Your task to perform on an android device: See recent photos Image 0: 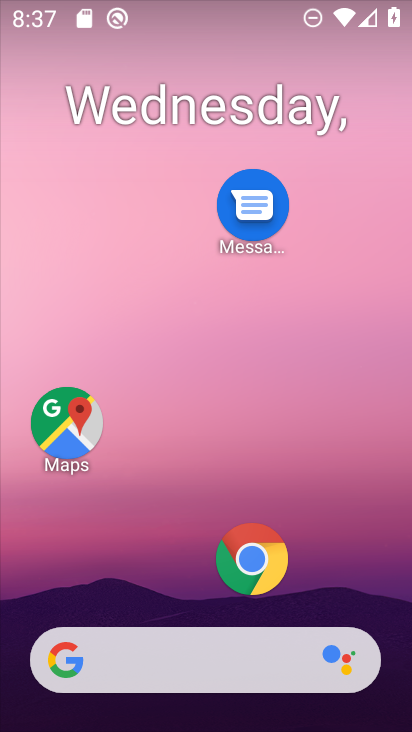
Step 0: drag from (301, 541) to (297, 314)
Your task to perform on an android device: See recent photos Image 1: 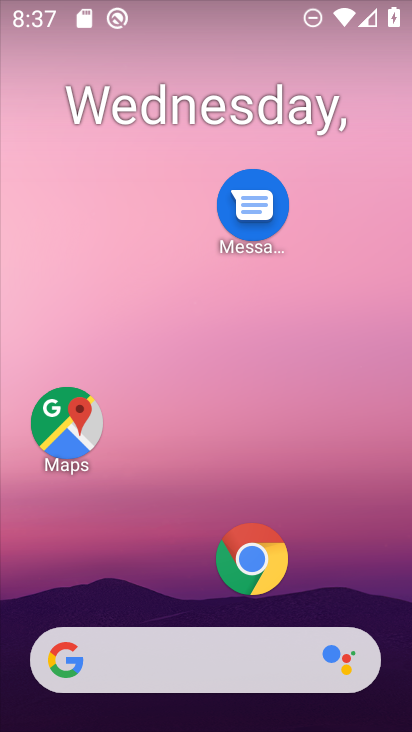
Step 1: drag from (148, 569) to (152, 316)
Your task to perform on an android device: See recent photos Image 2: 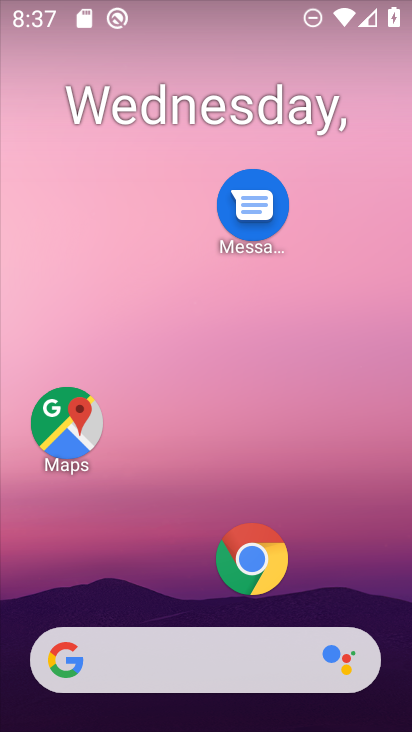
Step 2: drag from (138, 695) to (113, 256)
Your task to perform on an android device: See recent photos Image 3: 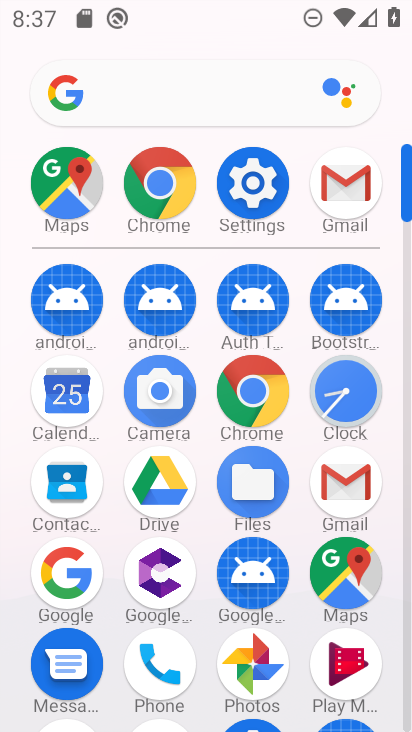
Step 3: drag from (161, 544) to (130, 313)
Your task to perform on an android device: See recent photos Image 4: 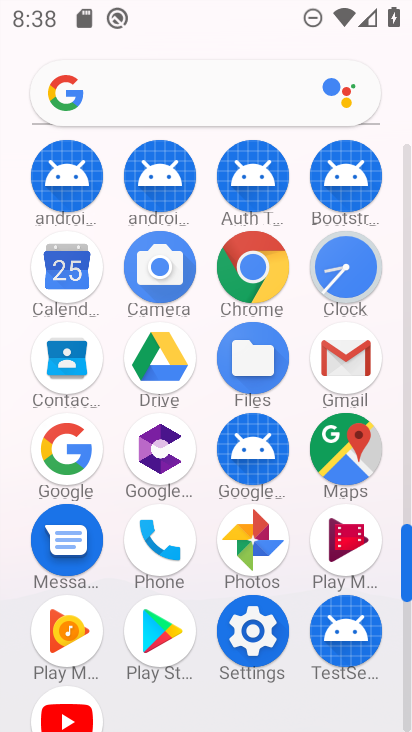
Step 4: click (261, 550)
Your task to perform on an android device: See recent photos Image 5: 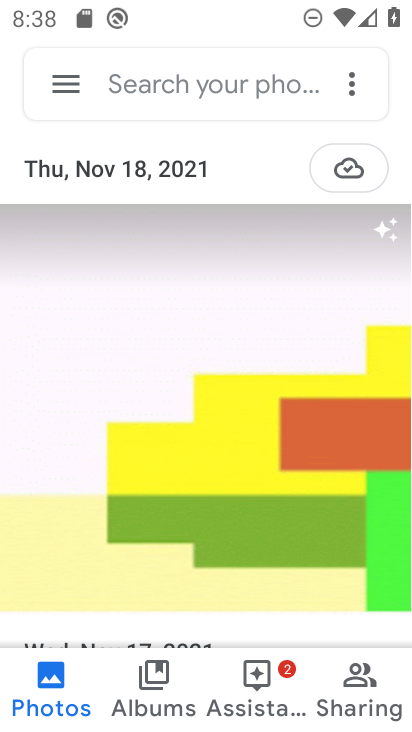
Step 5: task complete